Your task to perform on an android device: create a new album in the google photos Image 0: 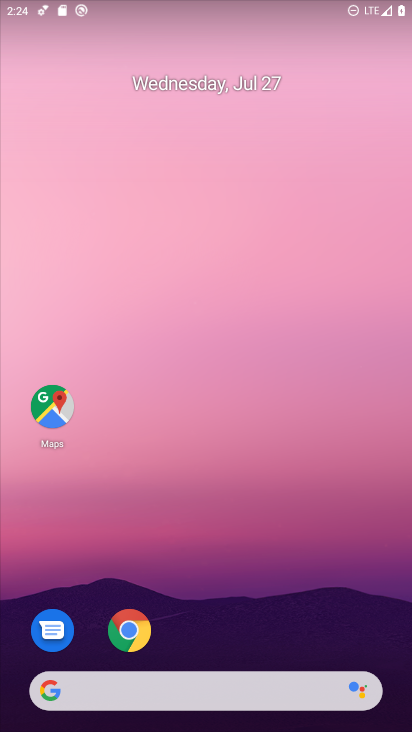
Step 0: drag from (375, 635) to (330, 195)
Your task to perform on an android device: create a new album in the google photos Image 1: 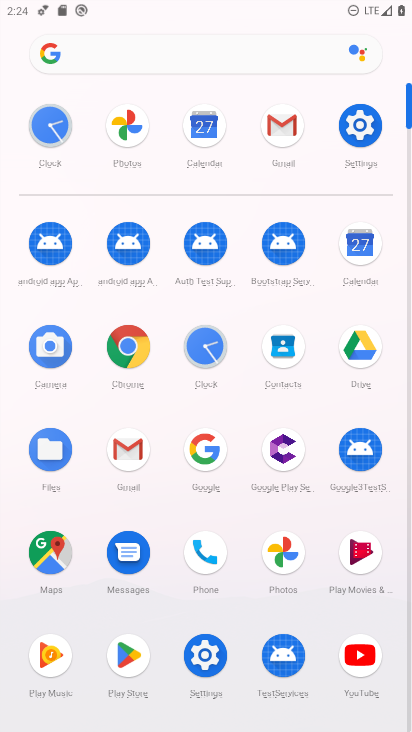
Step 1: click (279, 549)
Your task to perform on an android device: create a new album in the google photos Image 2: 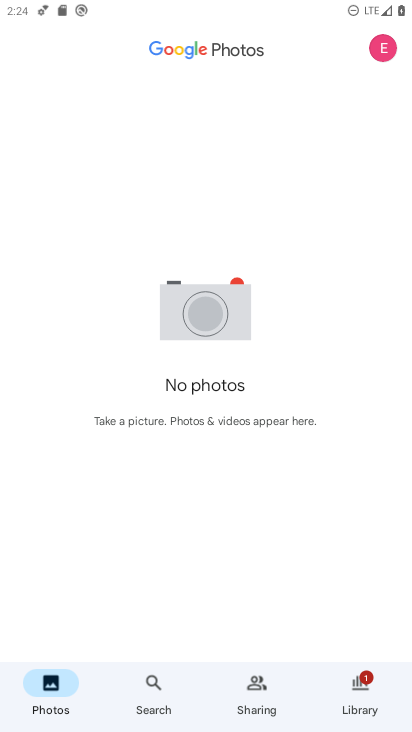
Step 2: click (350, 692)
Your task to perform on an android device: create a new album in the google photos Image 3: 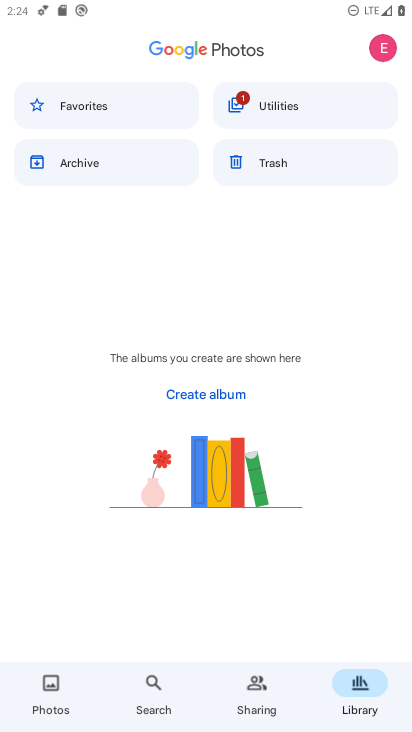
Step 3: click (191, 394)
Your task to perform on an android device: create a new album in the google photos Image 4: 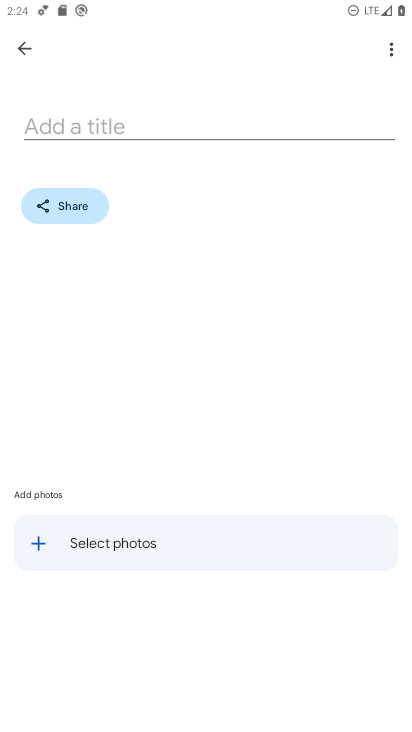
Step 4: click (103, 127)
Your task to perform on an android device: create a new album in the google photos Image 5: 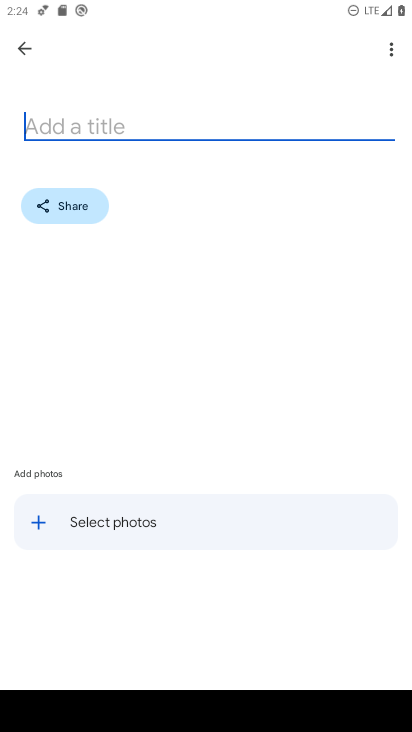
Step 5: type "hmhmghm"
Your task to perform on an android device: create a new album in the google photos Image 6: 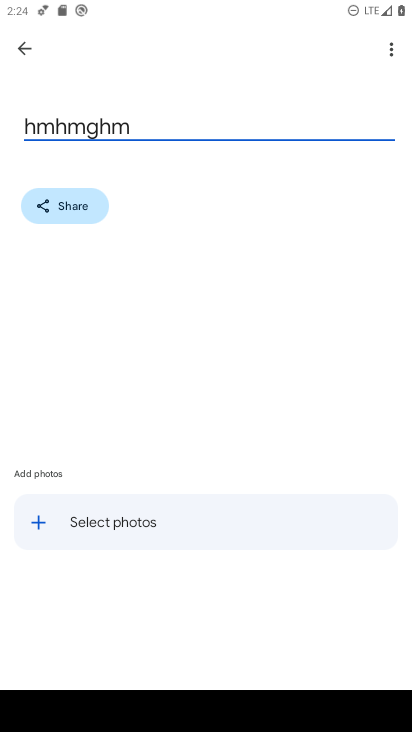
Step 6: click (37, 519)
Your task to perform on an android device: create a new album in the google photos Image 7: 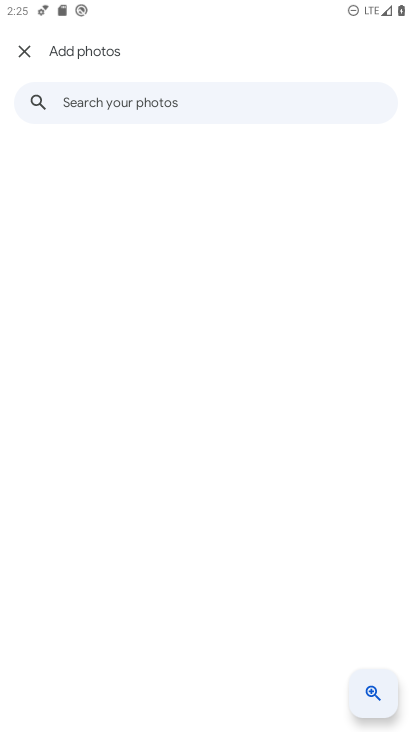
Step 7: task complete